Your task to perform on an android device: change keyboard looks Image 0: 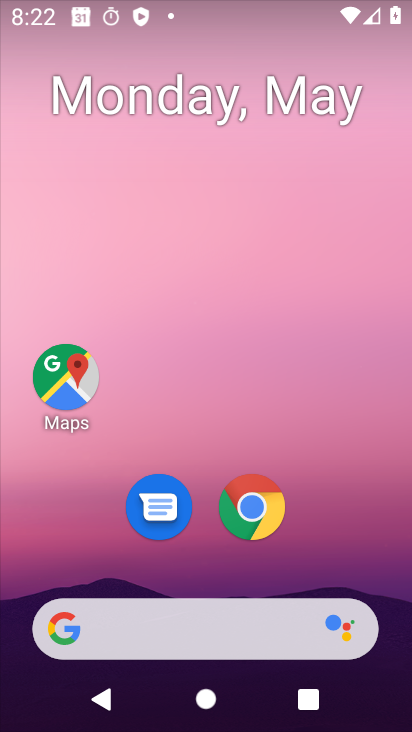
Step 0: drag from (215, 575) to (285, 185)
Your task to perform on an android device: change keyboard looks Image 1: 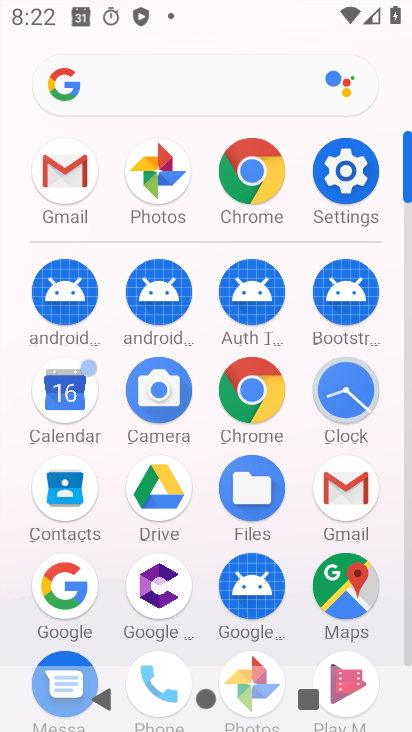
Step 1: click (345, 200)
Your task to perform on an android device: change keyboard looks Image 2: 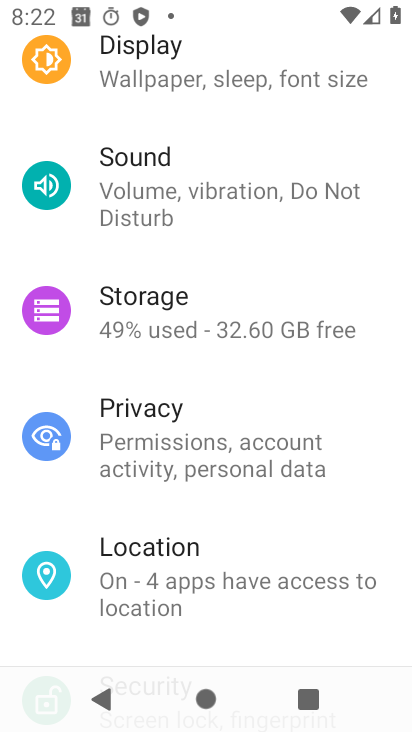
Step 2: drag from (195, 450) to (276, 113)
Your task to perform on an android device: change keyboard looks Image 3: 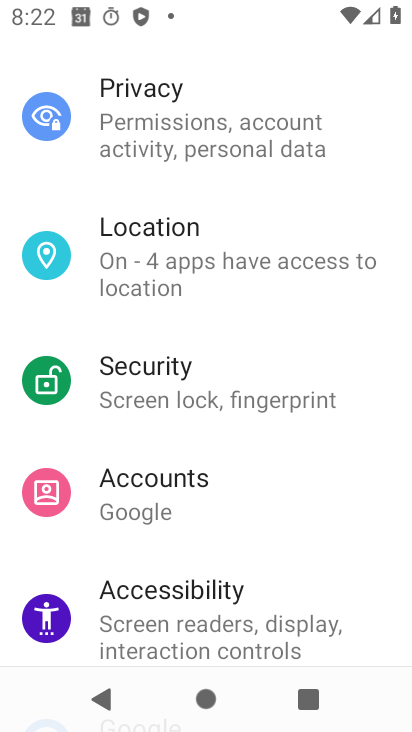
Step 3: drag from (203, 475) to (261, 286)
Your task to perform on an android device: change keyboard looks Image 4: 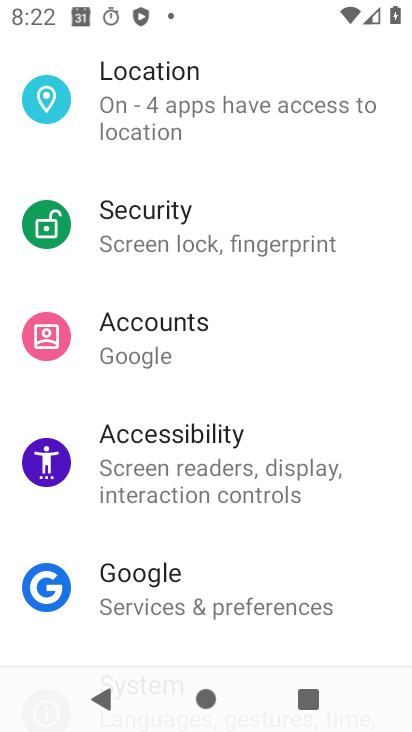
Step 4: drag from (201, 541) to (267, 299)
Your task to perform on an android device: change keyboard looks Image 5: 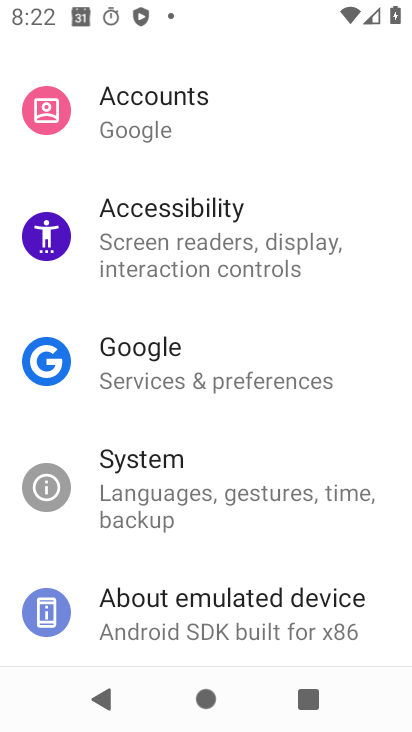
Step 5: click (192, 503)
Your task to perform on an android device: change keyboard looks Image 6: 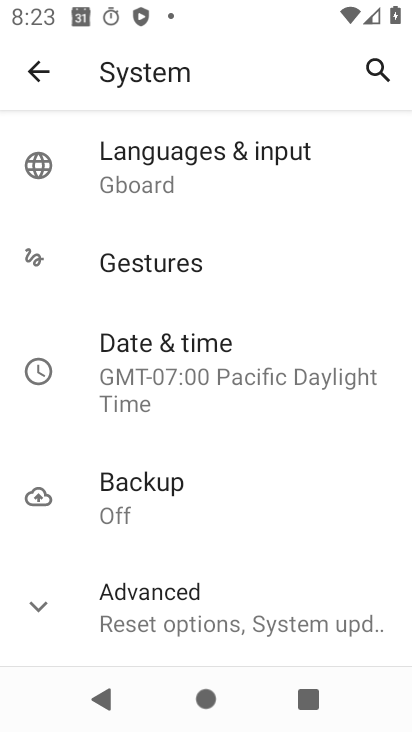
Step 6: drag from (211, 584) to (219, 425)
Your task to perform on an android device: change keyboard looks Image 7: 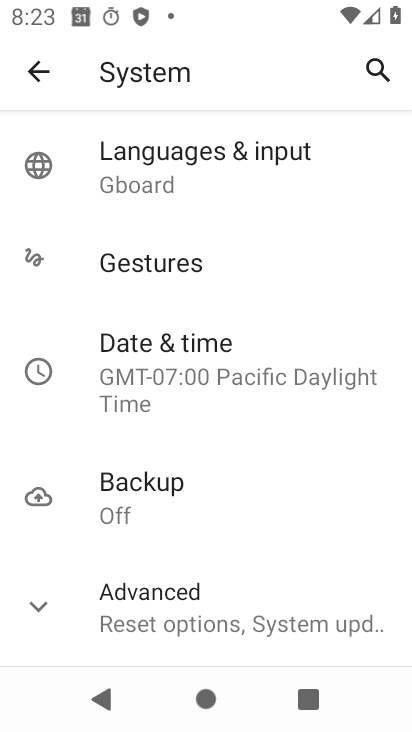
Step 7: click (208, 356)
Your task to perform on an android device: change keyboard looks Image 8: 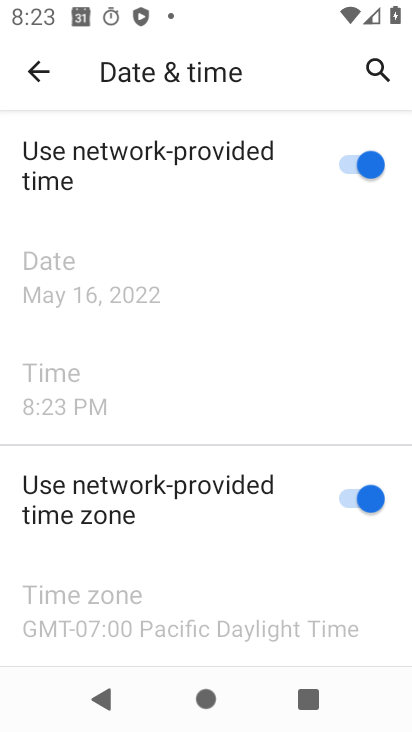
Step 8: drag from (179, 531) to (272, 182)
Your task to perform on an android device: change keyboard looks Image 9: 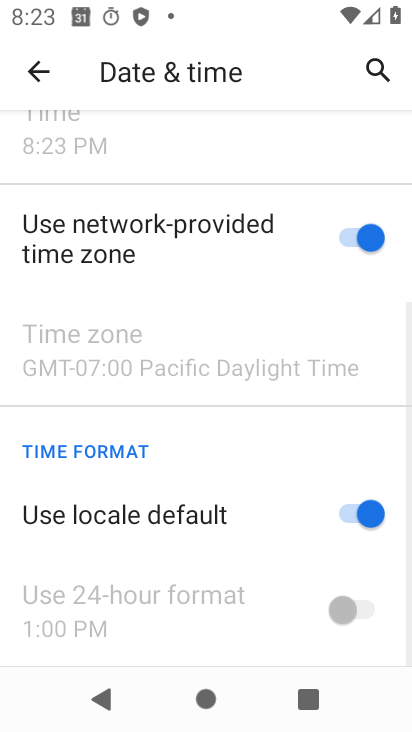
Step 9: click (42, 70)
Your task to perform on an android device: change keyboard looks Image 10: 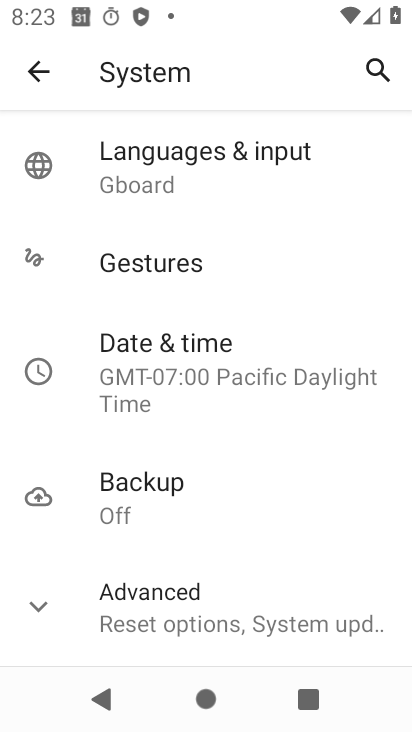
Step 10: click (196, 160)
Your task to perform on an android device: change keyboard looks Image 11: 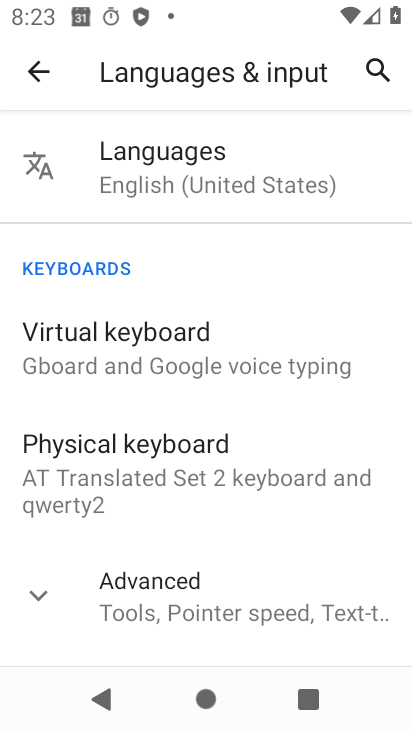
Step 11: click (174, 345)
Your task to perform on an android device: change keyboard looks Image 12: 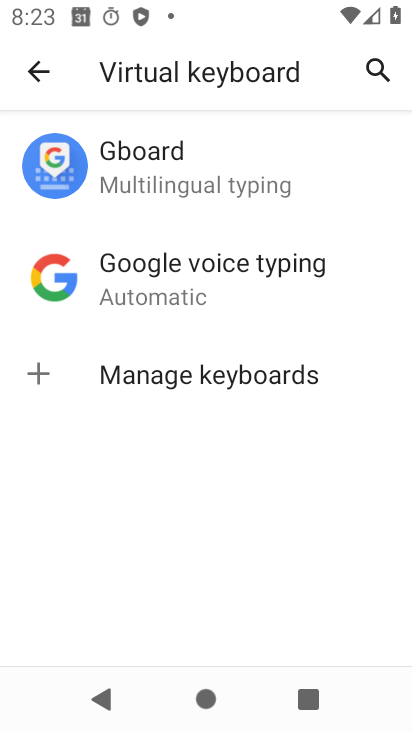
Step 12: click (182, 164)
Your task to perform on an android device: change keyboard looks Image 13: 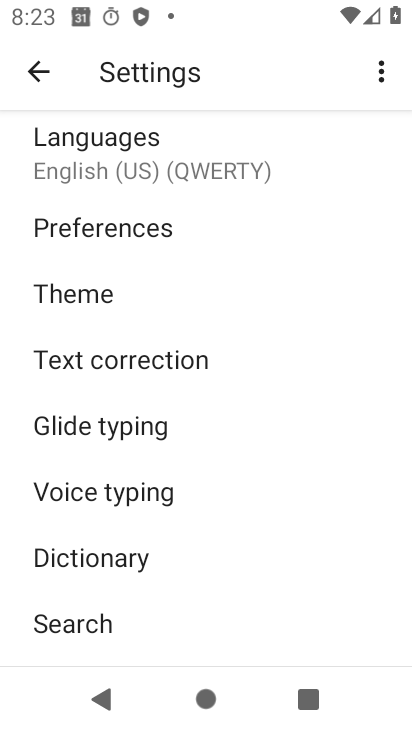
Step 13: click (110, 301)
Your task to perform on an android device: change keyboard looks Image 14: 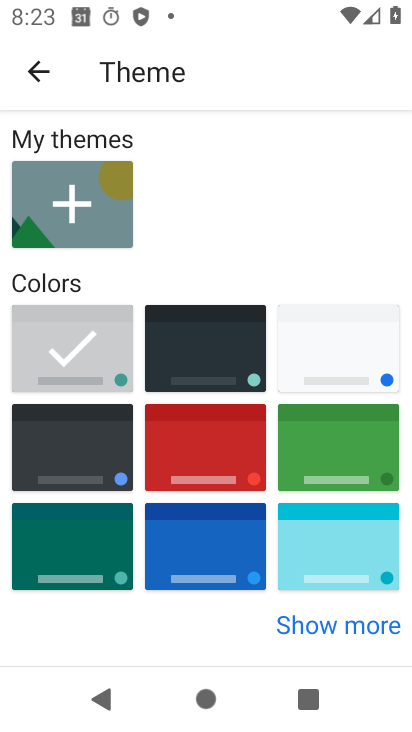
Step 14: click (192, 364)
Your task to perform on an android device: change keyboard looks Image 15: 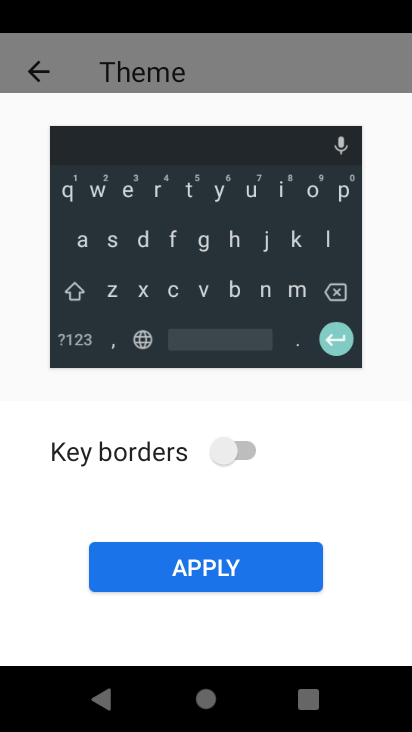
Step 15: click (268, 574)
Your task to perform on an android device: change keyboard looks Image 16: 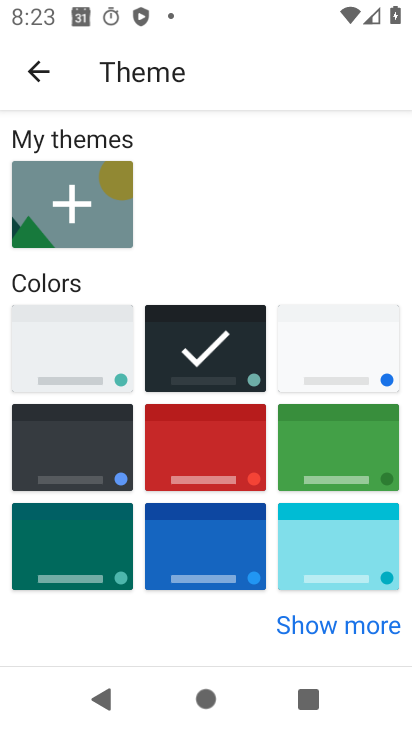
Step 16: task complete